Your task to perform on an android device: change the clock display to show seconds Image 0: 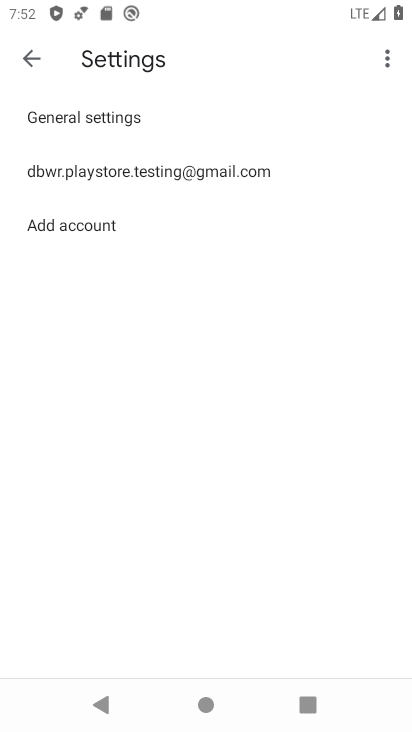
Step 0: press back button
Your task to perform on an android device: change the clock display to show seconds Image 1: 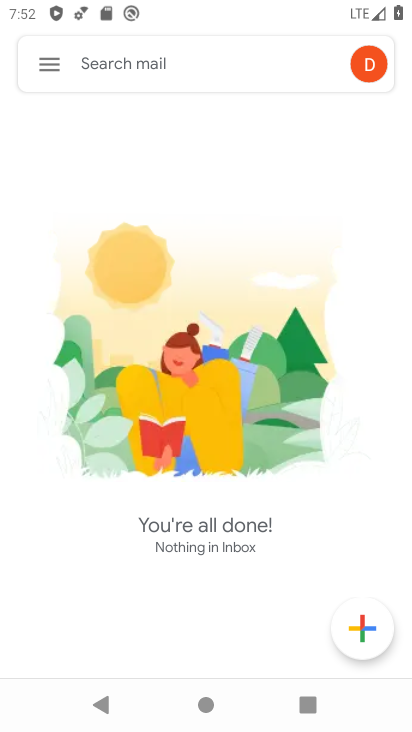
Step 1: press back button
Your task to perform on an android device: change the clock display to show seconds Image 2: 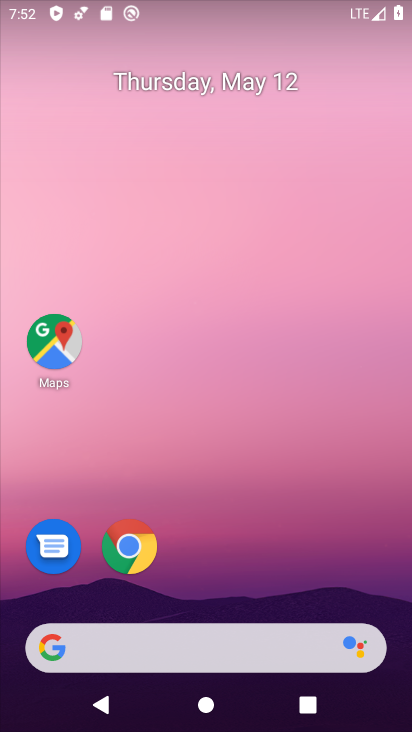
Step 2: drag from (273, 574) to (328, 23)
Your task to perform on an android device: change the clock display to show seconds Image 3: 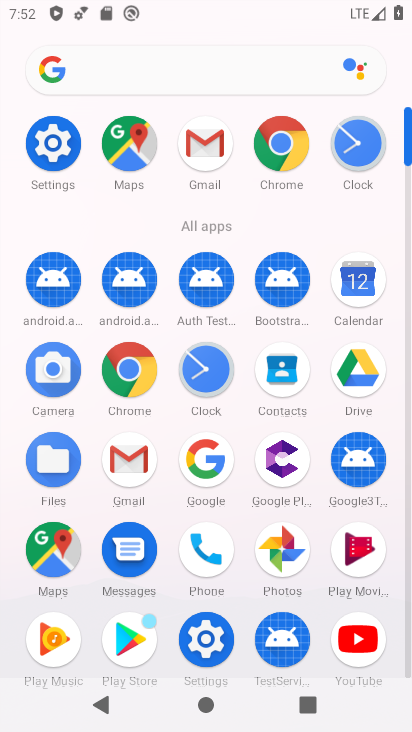
Step 3: click (62, 143)
Your task to perform on an android device: change the clock display to show seconds Image 4: 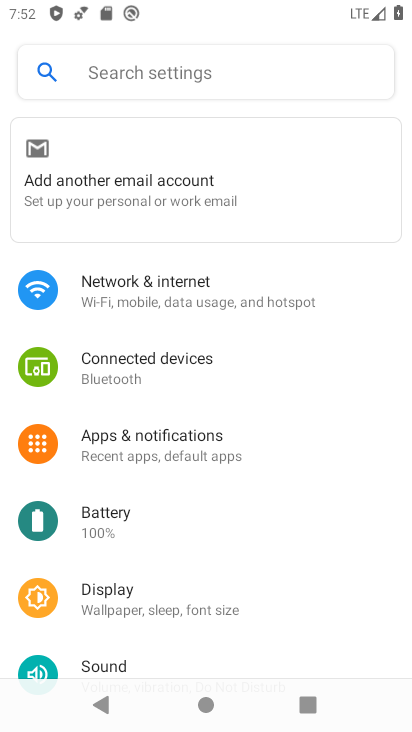
Step 4: drag from (210, 595) to (213, 226)
Your task to perform on an android device: change the clock display to show seconds Image 5: 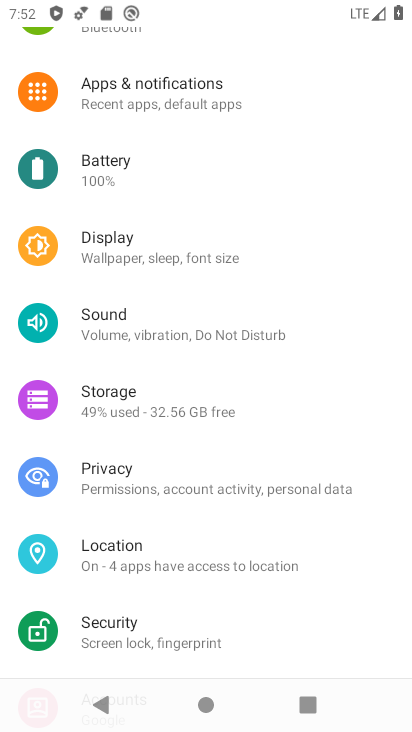
Step 5: click (110, 235)
Your task to perform on an android device: change the clock display to show seconds Image 6: 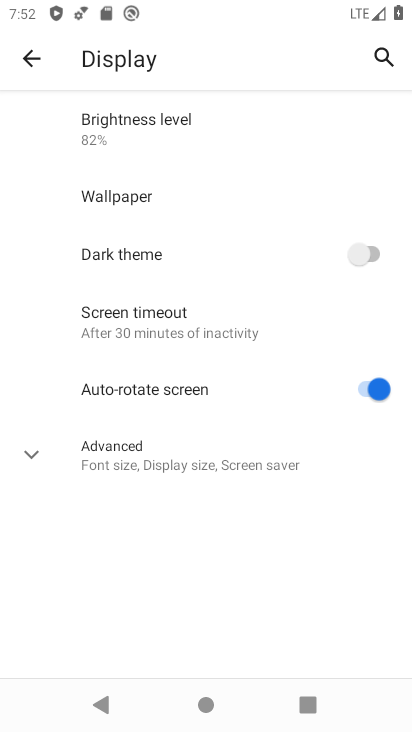
Step 6: press back button
Your task to perform on an android device: change the clock display to show seconds Image 7: 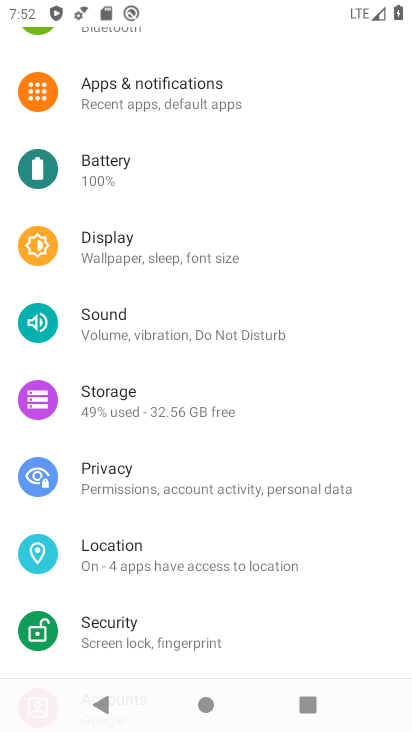
Step 7: press back button
Your task to perform on an android device: change the clock display to show seconds Image 8: 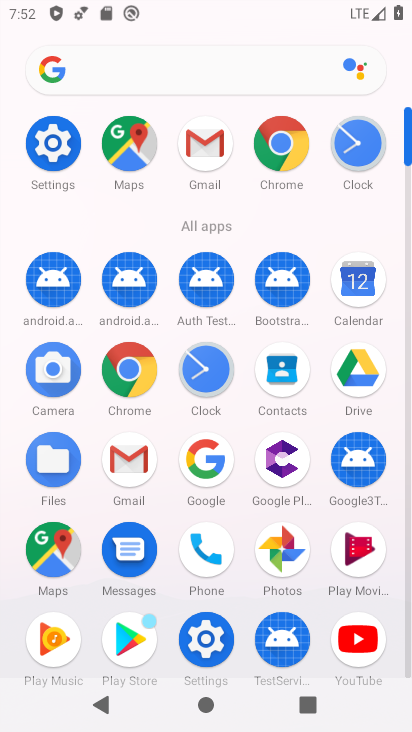
Step 8: click (197, 359)
Your task to perform on an android device: change the clock display to show seconds Image 9: 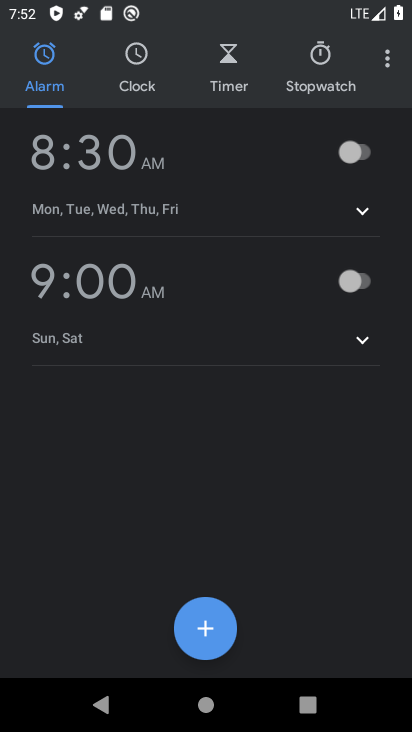
Step 9: click (390, 52)
Your task to perform on an android device: change the clock display to show seconds Image 10: 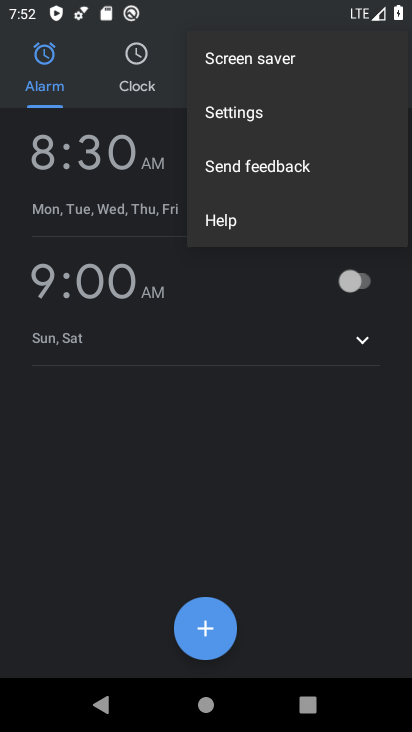
Step 10: click (269, 112)
Your task to perform on an android device: change the clock display to show seconds Image 11: 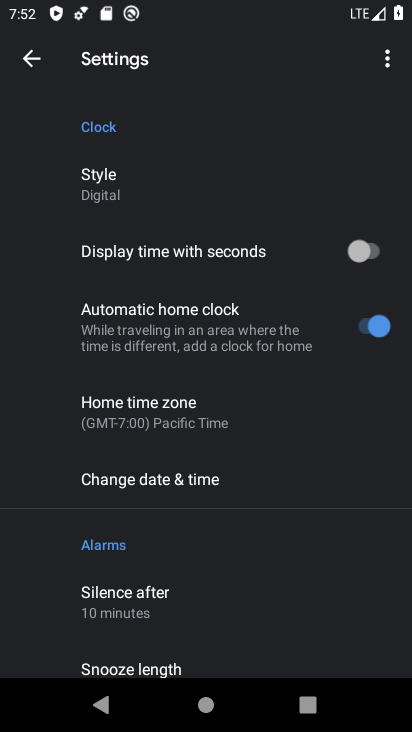
Step 11: click (170, 177)
Your task to perform on an android device: change the clock display to show seconds Image 12: 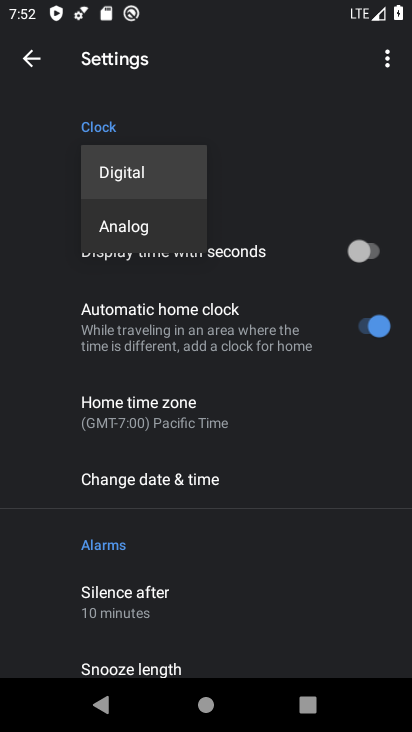
Step 12: click (170, 177)
Your task to perform on an android device: change the clock display to show seconds Image 13: 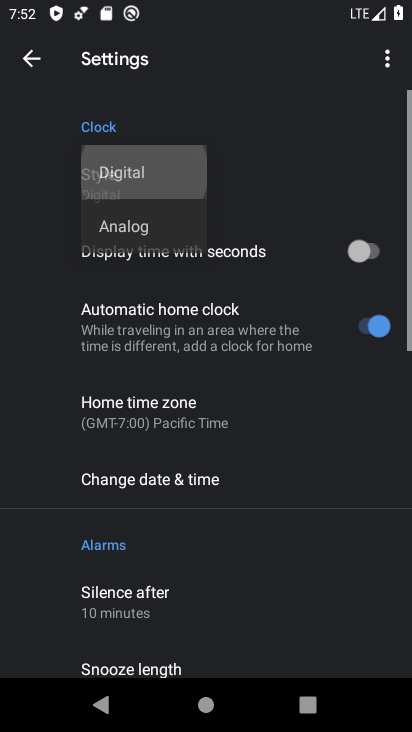
Step 13: click (375, 250)
Your task to perform on an android device: change the clock display to show seconds Image 14: 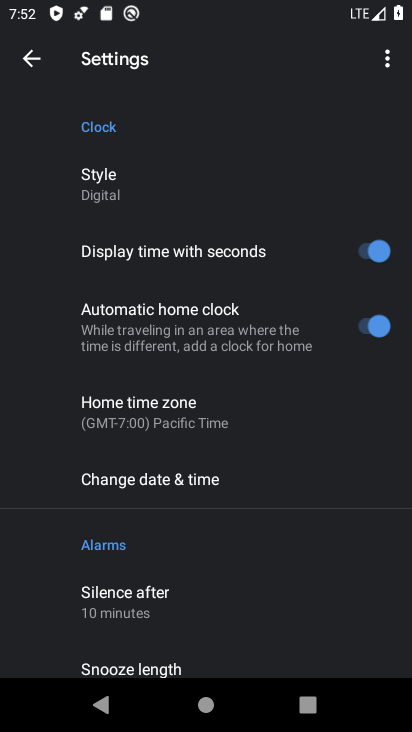
Step 14: task complete